Your task to perform on an android device: find snoozed emails in the gmail app Image 0: 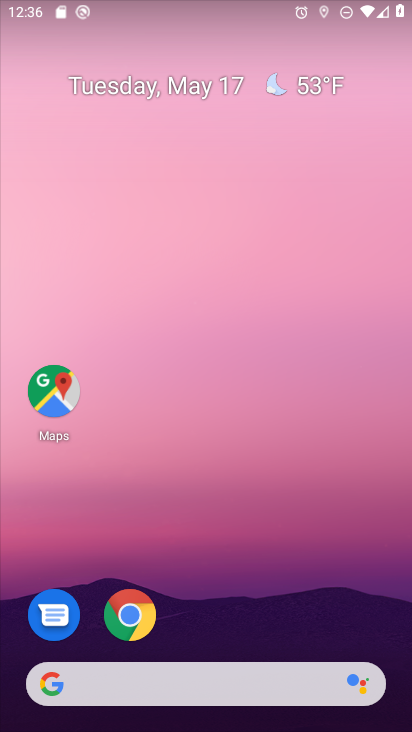
Step 0: drag from (189, 626) to (195, 249)
Your task to perform on an android device: find snoozed emails in the gmail app Image 1: 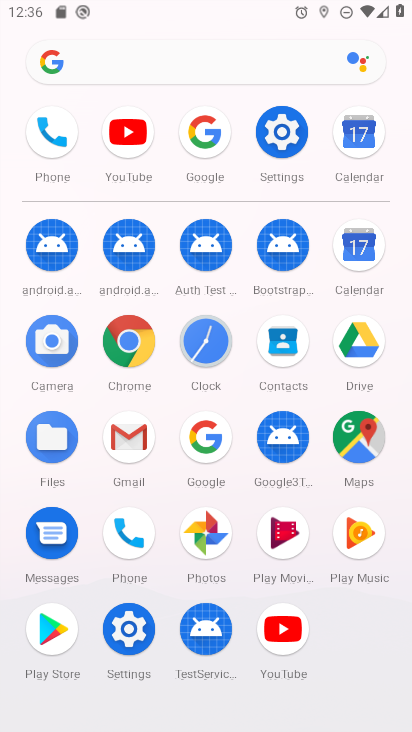
Step 1: click (129, 433)
Your task to perform on an android device: find snoozed emails in the gmail app Image 2: 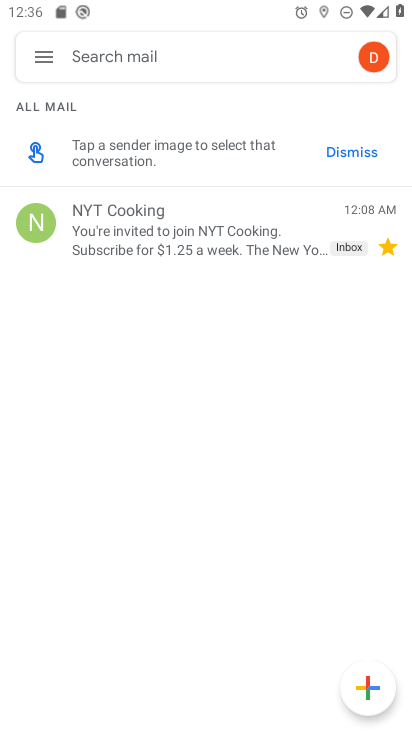
Step 2: click (41, 54)
Your task to perform on an android device: find snoozed emails in the gmail app Image 3: 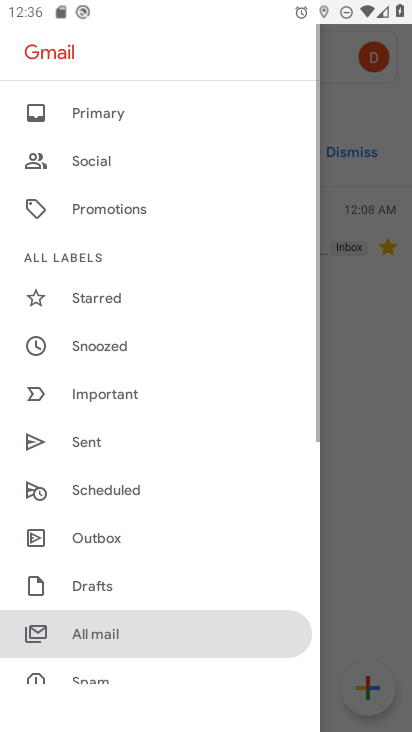
Step 3: click (93, 346)
Your task to perform on an android device: find snoozed emails in the gmail app Image 4: 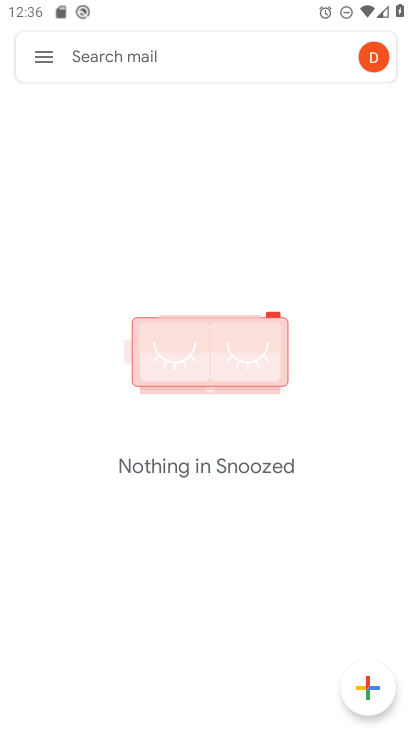
Step 4: task complete